Your task to perform on an android device: change timer sound Image 0: 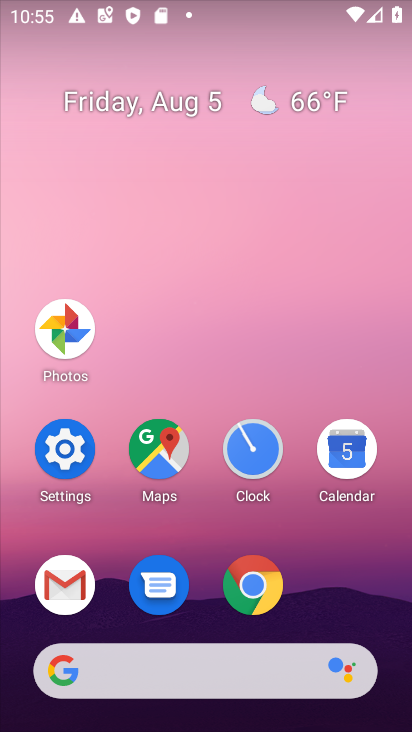
Step 0: click (245, 438)
Your task to perform on an android device: change timer sound Image 1: 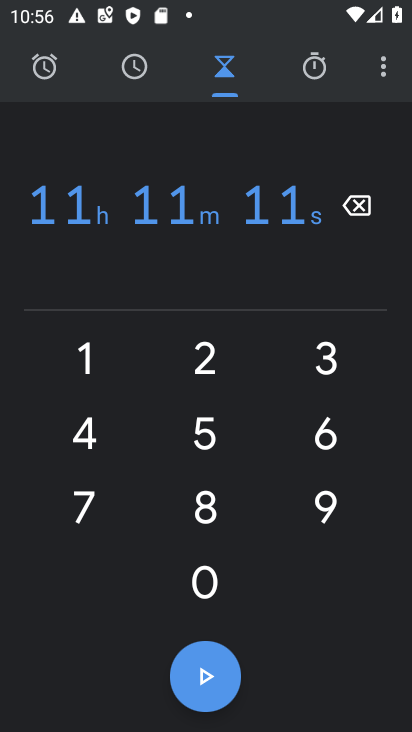
Step 1: click (387, 68)
Your task to perform on an android device: change timer sound Image 2: 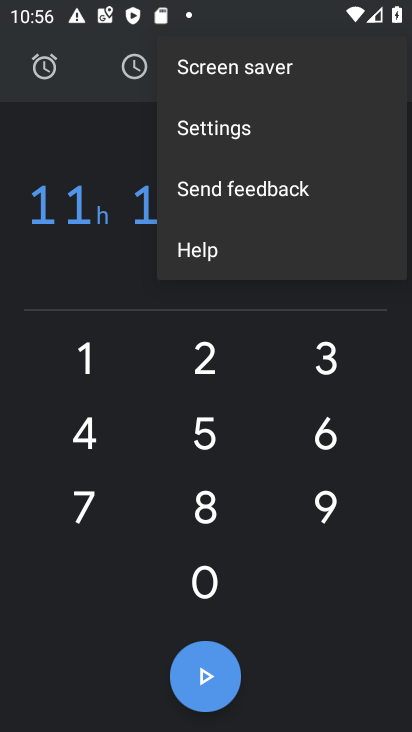
Step 2: click (225, 122)
Your task to perform on an android device: change timer sound Image 3: 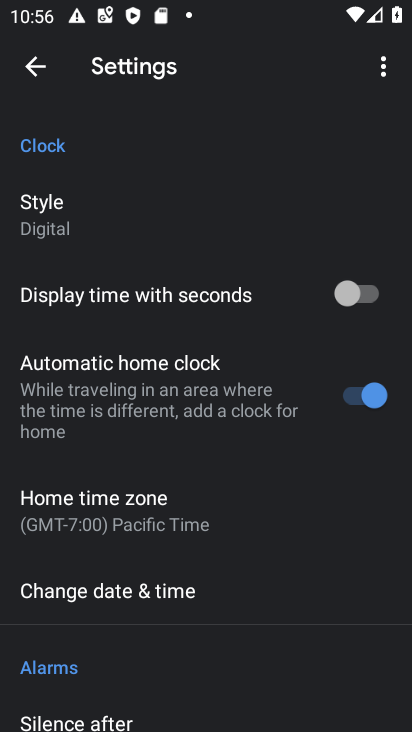
Step 3: drag from (246, 627) to (244, 265)
Your task to perform on an android device: change timer sound Image 4: 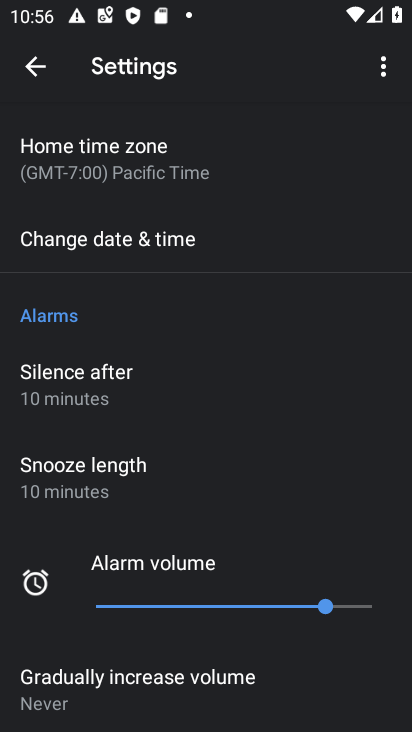
Step 4: drag from (213, 518) to (201, 159)
Your task to perform on an android device: change timer sound Image 5: 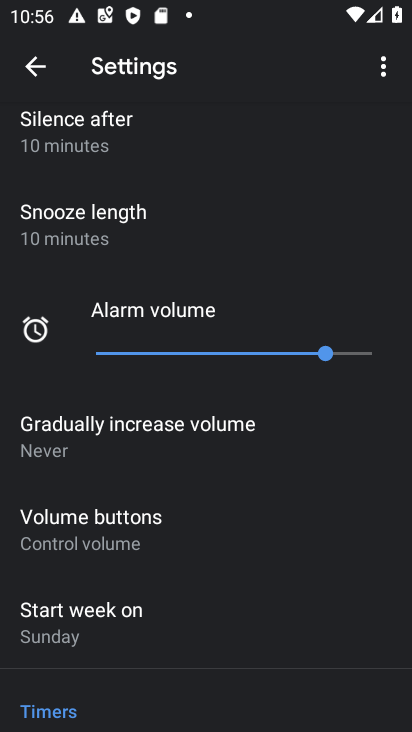
Step 5: drag from (218, 563) to (195, 254)
Your task to perform on an android device: change timer sound Image 6: 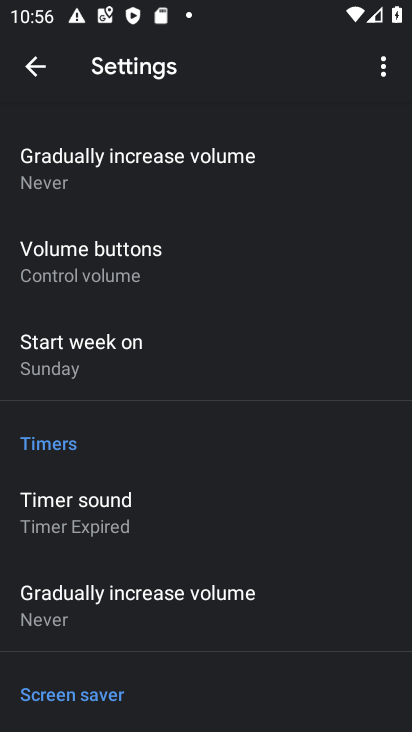
Step 6: click (80, 506)
Your task to perform on an android device: change timer sound Image 7: 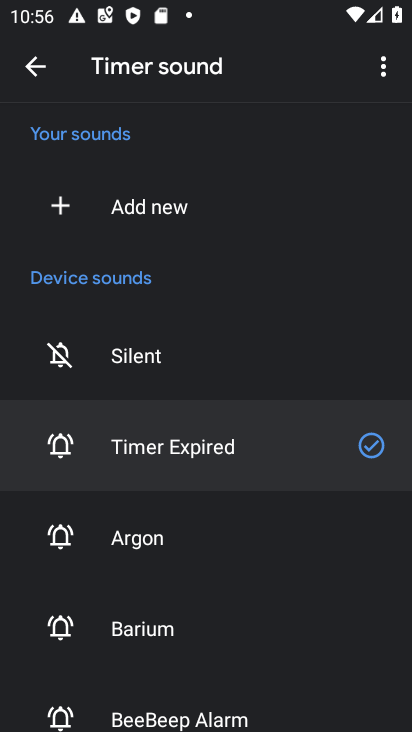
Step 7: click (133, 541)
Your task to perform on an android device: change timer sound Image 8: 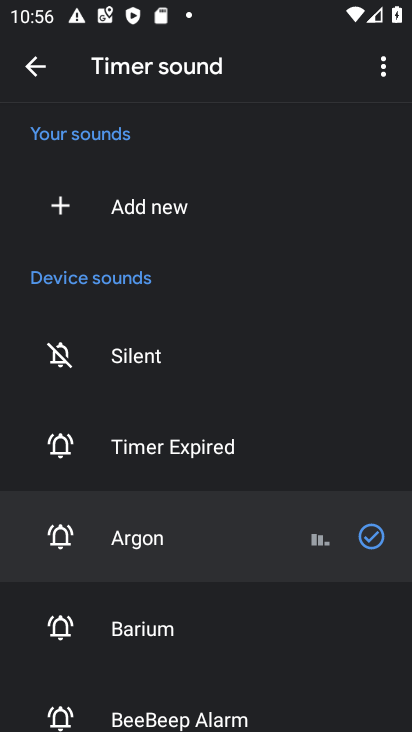
Step 8: task complete